Your task to perform on an android device: open app "Google Sheets" Image 0: 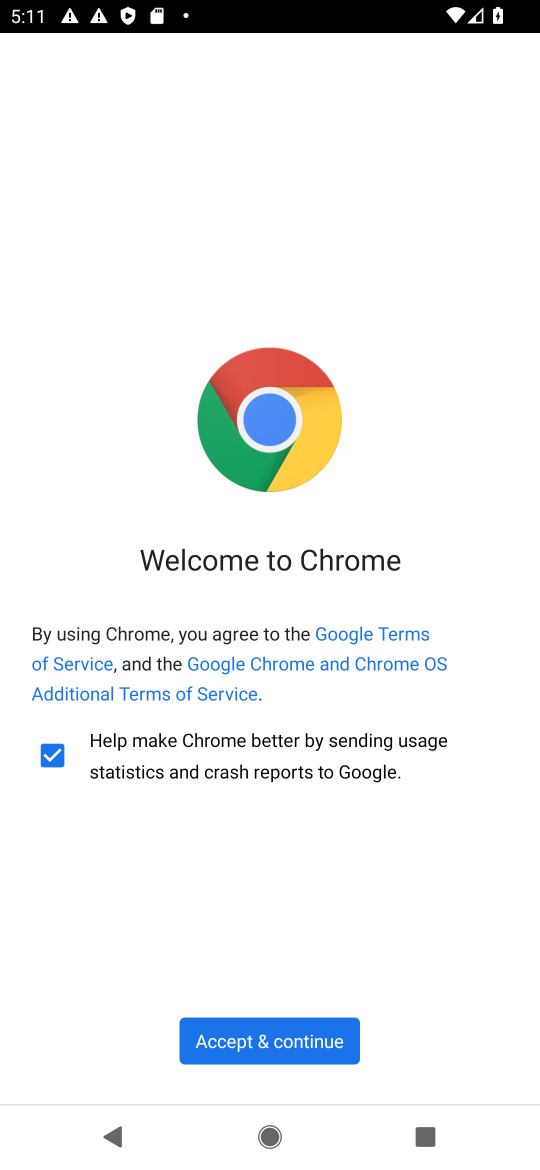
Step 0: press home button
Your task to perform on an android device: open app "Google Sheets" Image 1: 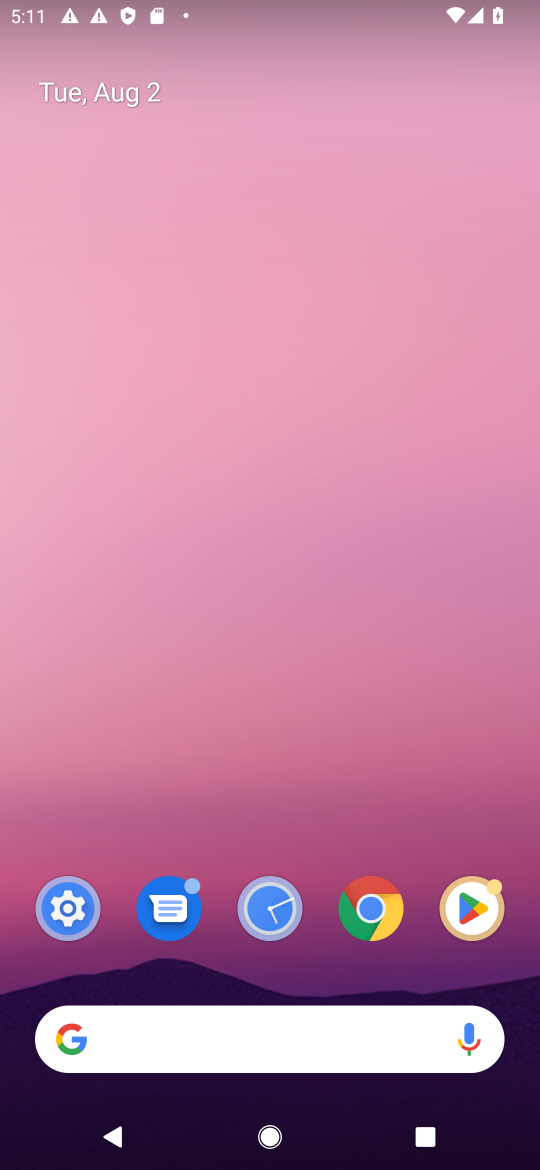
Step 1: click (471, 904)
Your task to perform on an android device: open app "Google Sheets" Image 2: 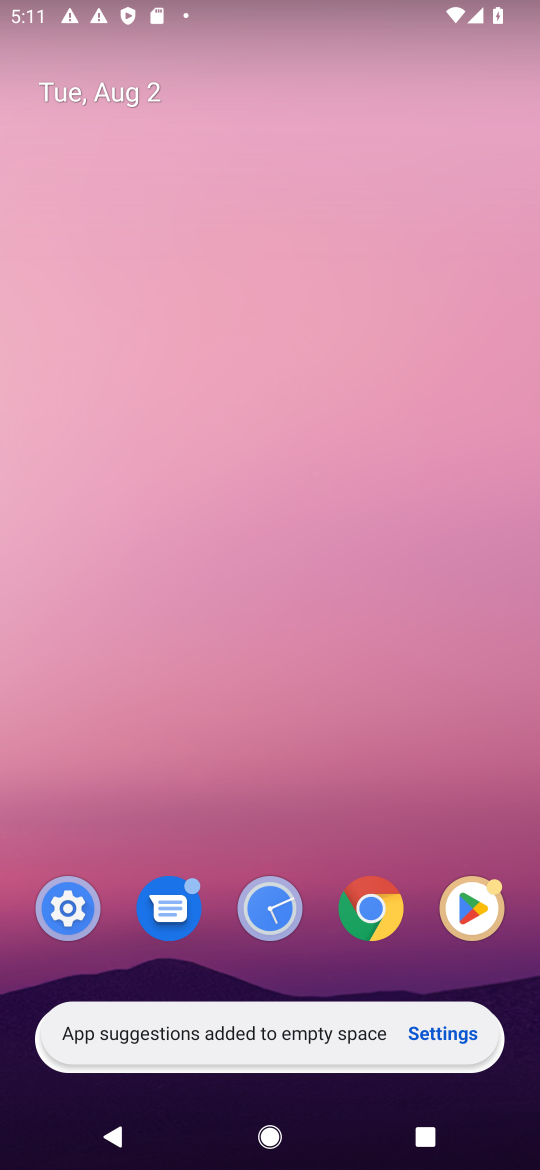
Step 2: click (468, 905)
Your task to perform on an android device: open app "Google Sheets" Image 3: 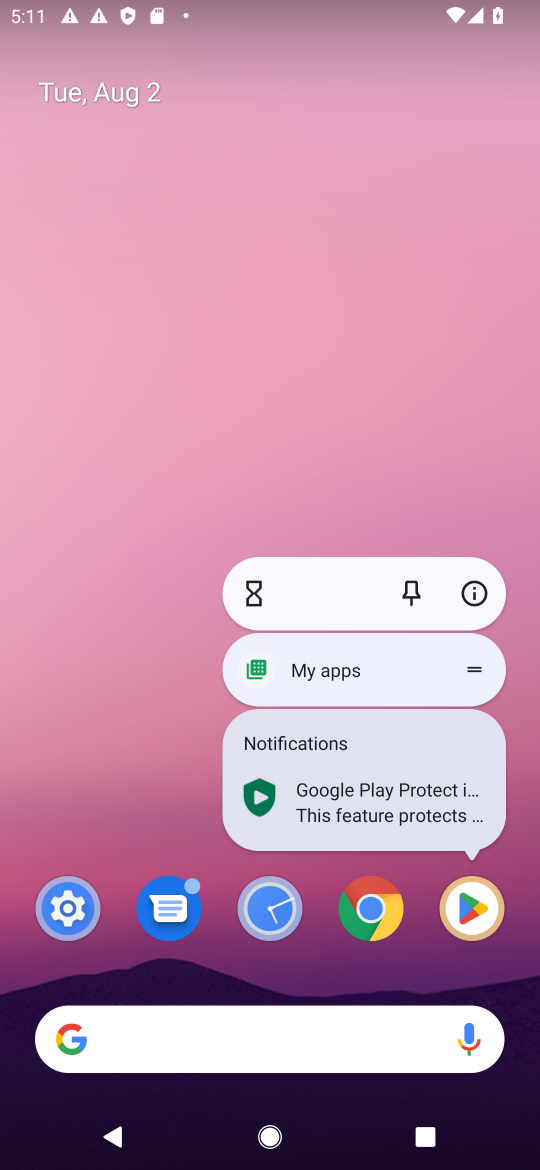
Step 3: click (467, 900)
Your task to perform on an android device: open app "Google Sheets" Image 4: 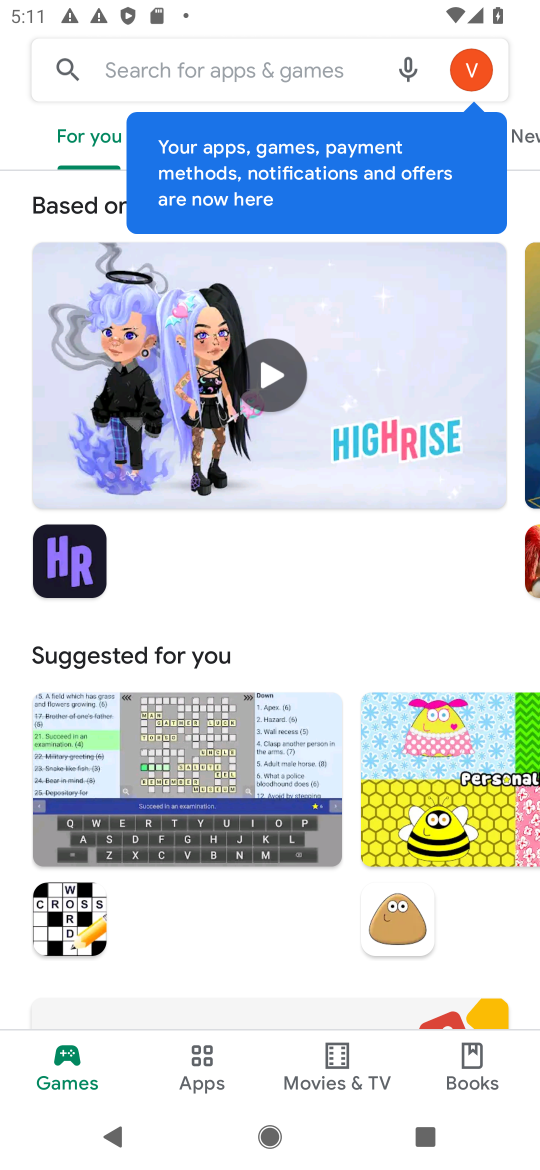
Step 4: click (199, 66)
Your task to perform on an android device: open app "Google Sheets" Image 5: 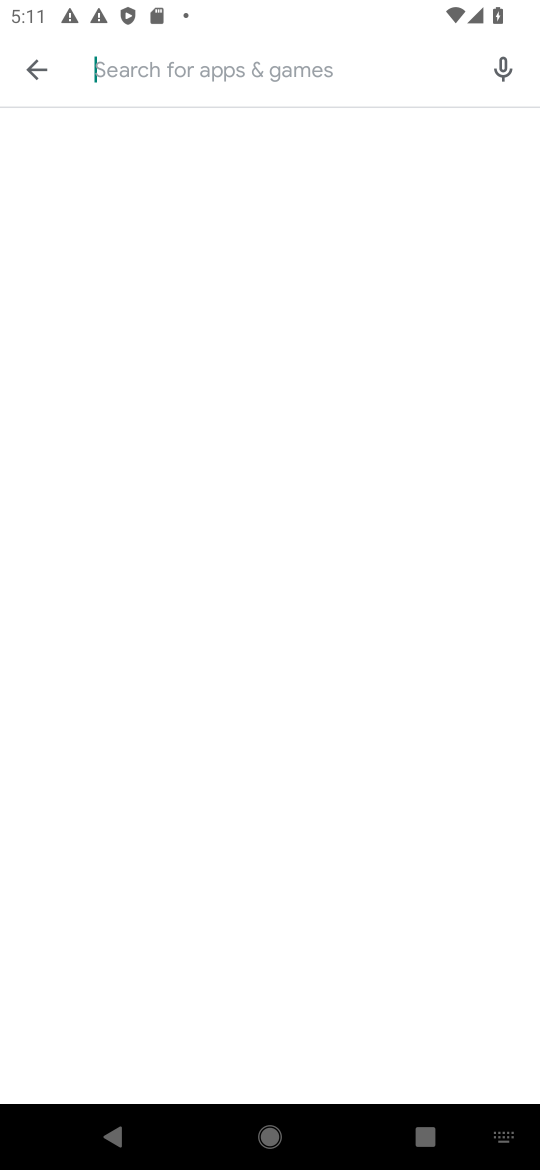
Step 5: type "Google Sheets"
Your task to perform on an android device: open app "Google Sheets" Image 6: 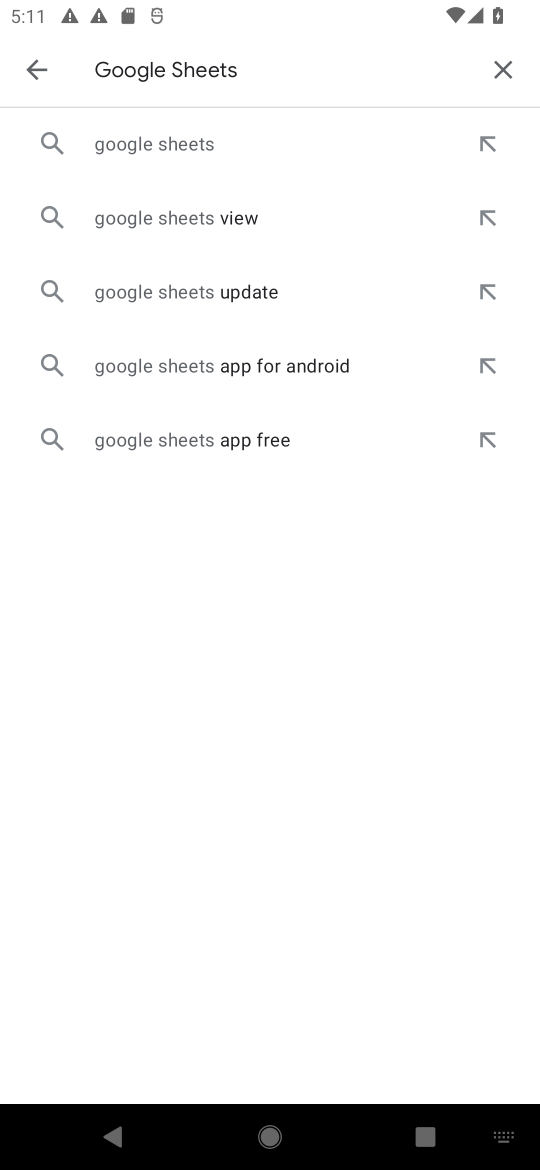
Step 6: click (157, 137)
Your task to perform on an android device: open app "Google Sheets" Image 7: 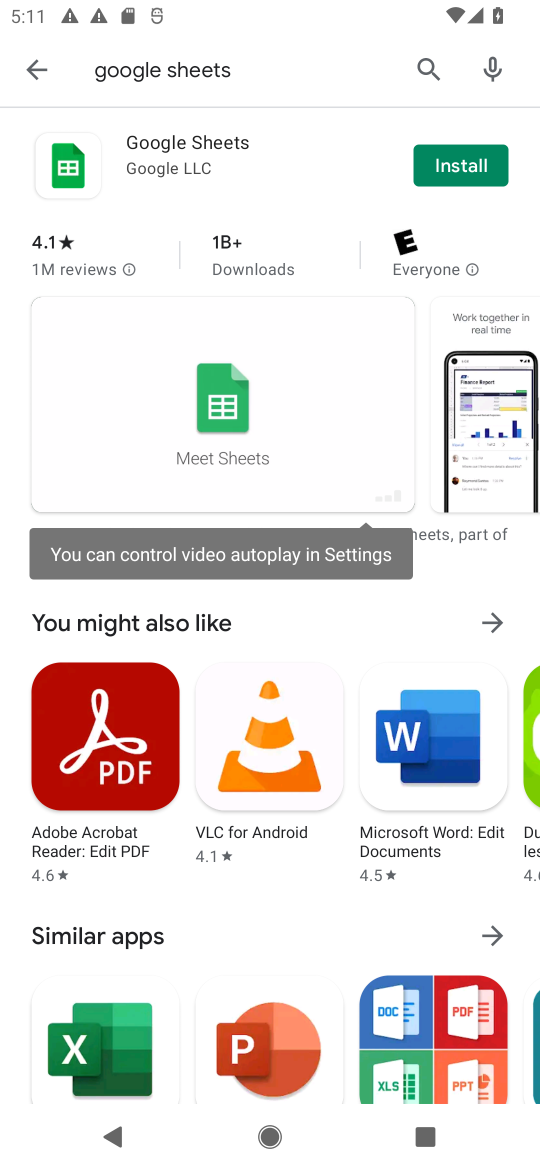
Step 7: task complete